Your task to perform on an android device: Open wifi settings Image 0: 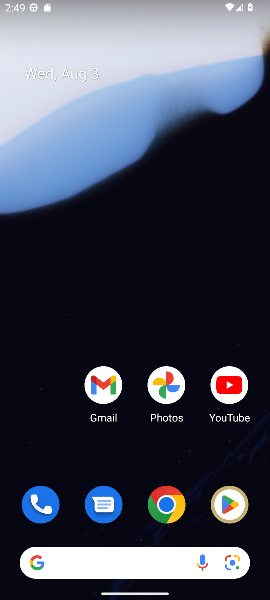
Step 0: drag from (135, 468) to (133, 127)
Your task to perform on an android device: Open wifi settings Image 1: 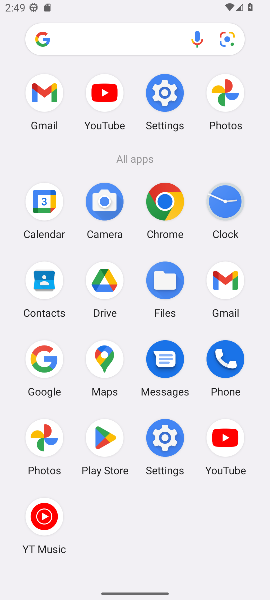
Step 1: click (174, 88)
Your task to perform on an android device: Open wifi settings Image 2: 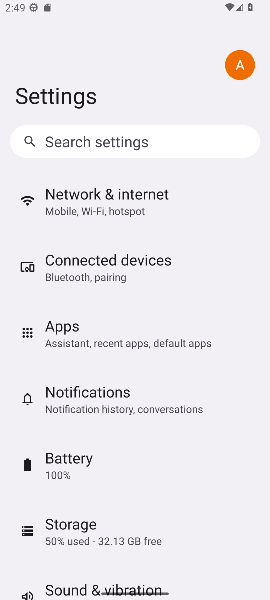
Step 2: click (111, 202)
Your task to perform on an android device: Open wifi settings Image 3: 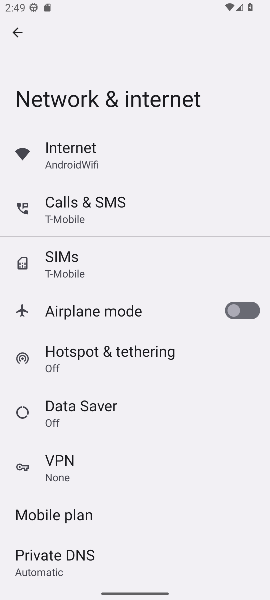
Step 3: click (90, 165)
Your task to perform on an android device: Open wifi settings Image 4: 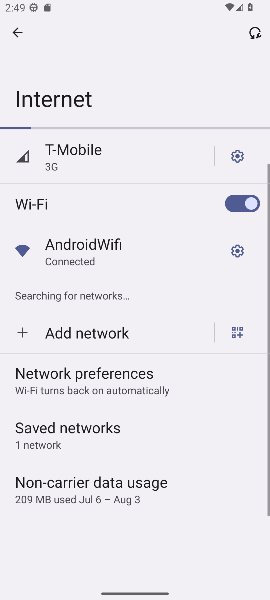
Step 4: click (242, 257)
Your task to perform on an android device: Open wifi settings Image 5: 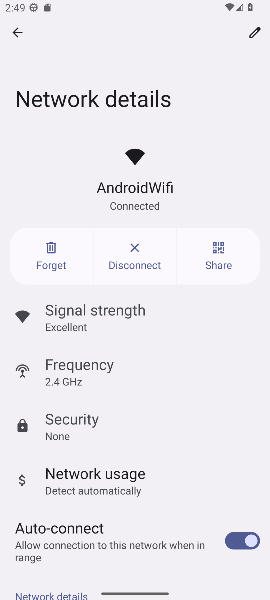
Step 5: task complete